Your task to perform on an android device: set the timer Image 0: 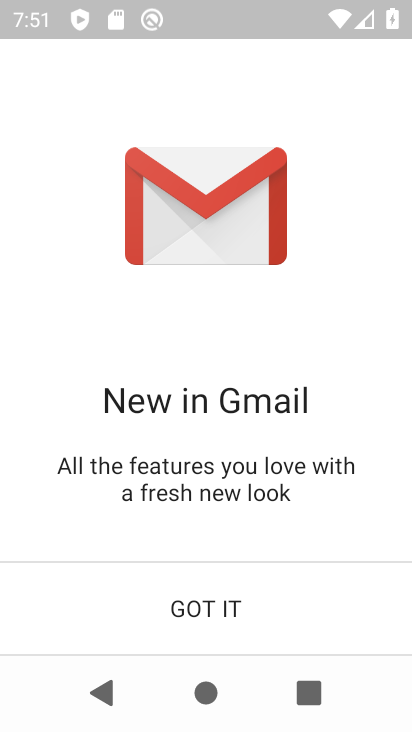
Step 0: press home button
Your task to perform on an android device: set the timer Image 1: 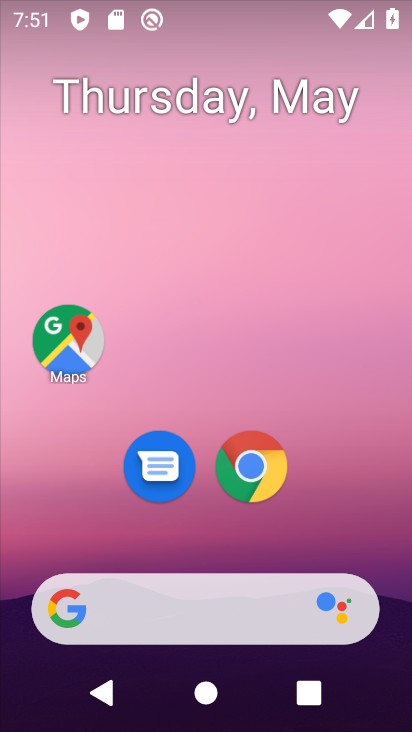
Step 1: drag from (374, 536) to (380, 13)
Your task to perform on an android device: set the timer Image 2: 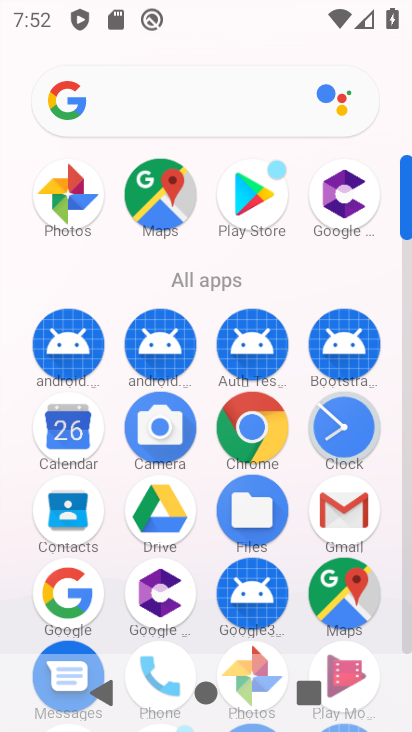
Step 2: click (342, 435)
Your task to perform on an android device: set the timer Image 3: 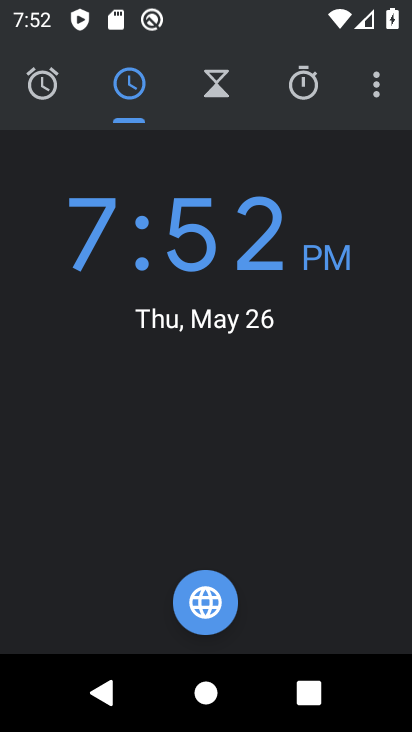
Step 3: click (223, 93)
Your task to perform on an android device: set the timer Image 4: 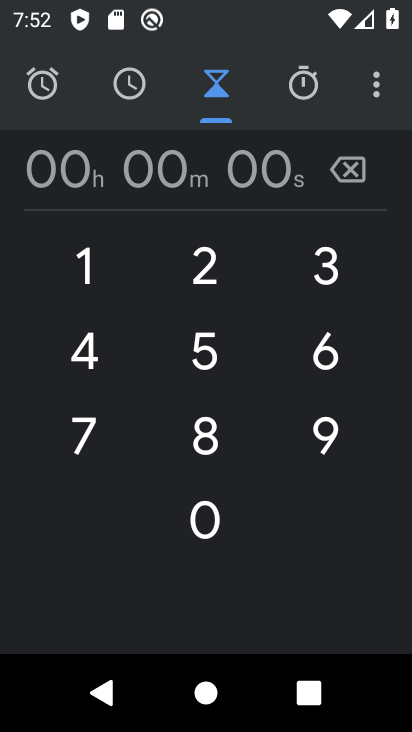
Step 4: click (204, 264)
Your task to perform on an android device: set the timer Image 5: 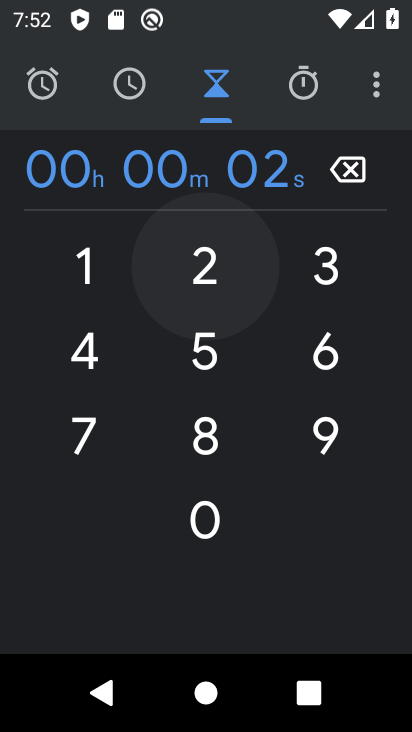
Step 5: click (196, 348)
Your task to perform on an android device: set the timer Image 6: 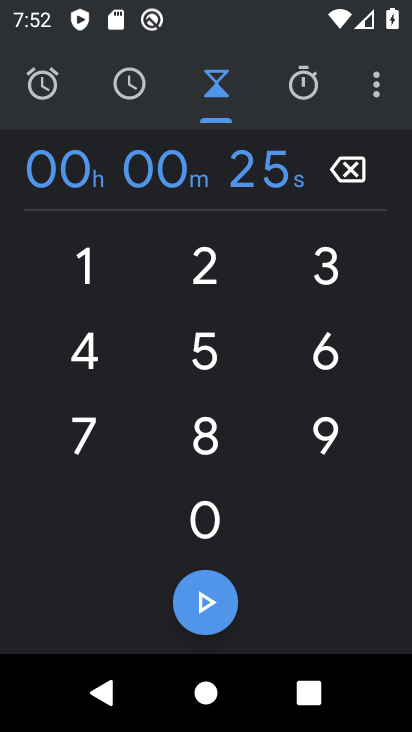
Step 6: click (200, 603)
Your task to perform on an android device: set the timer Image 7: 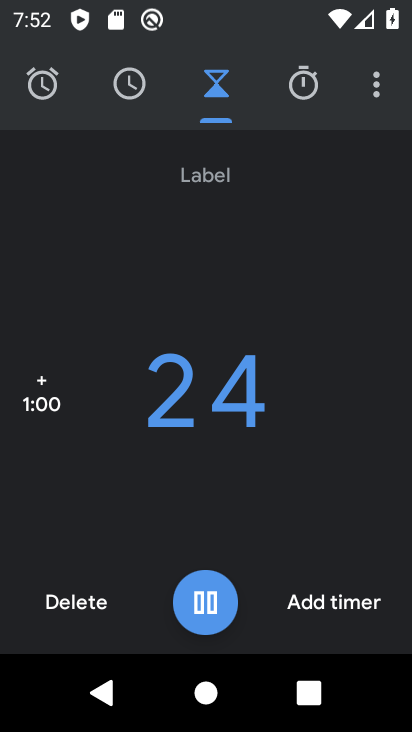
Step 7: task complete